Your task to perform on an android device: turn off improve location accuracy Image 0: 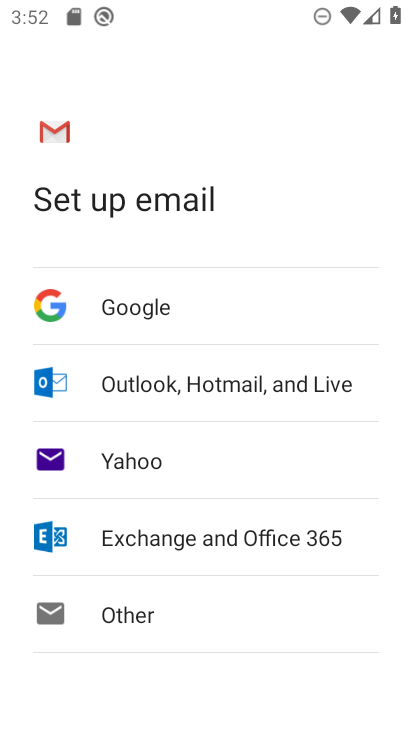
Step 0: press home button
Your task to perform on an android device: turn off improve location accuracy Image 1: 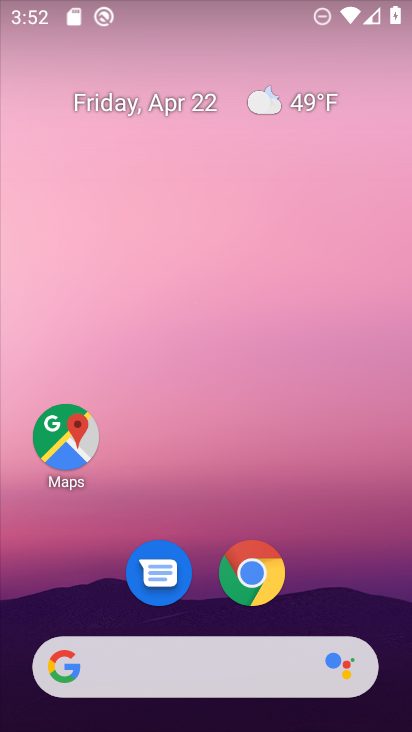
Step 1: drag from (307, 547) to (297, 71)
Your task to perform on an android device: turn off improve location accuracy Image 2: 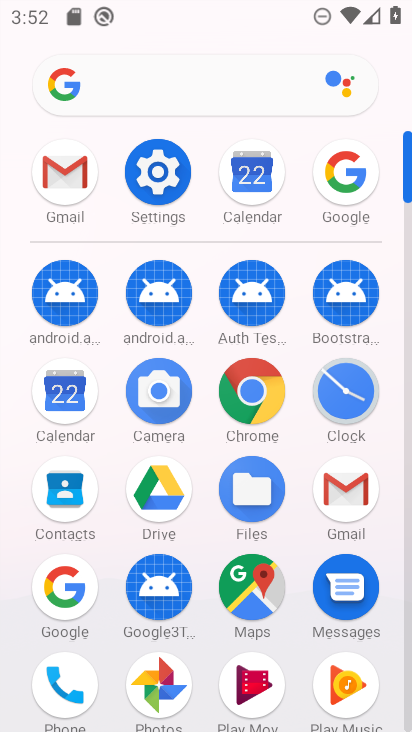
Step 2: click (153, 170)
Your task to perform on an android device: turn off improve location accuracy Image 3: 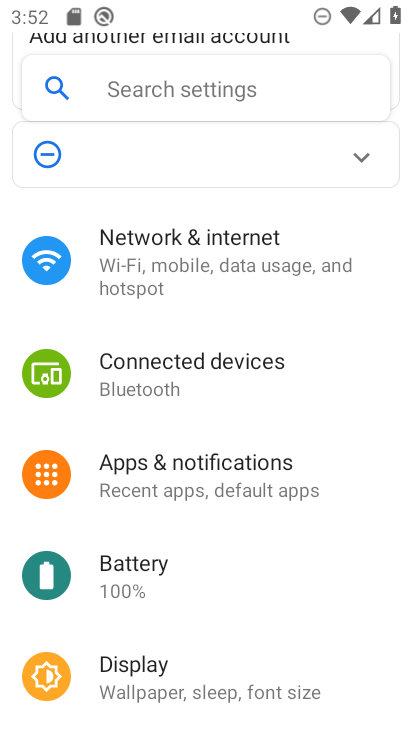
Step 3: drag from (223, 531) to (270, 77)
Your task to perform on an android device: turn off improve location accuracy Image 4: 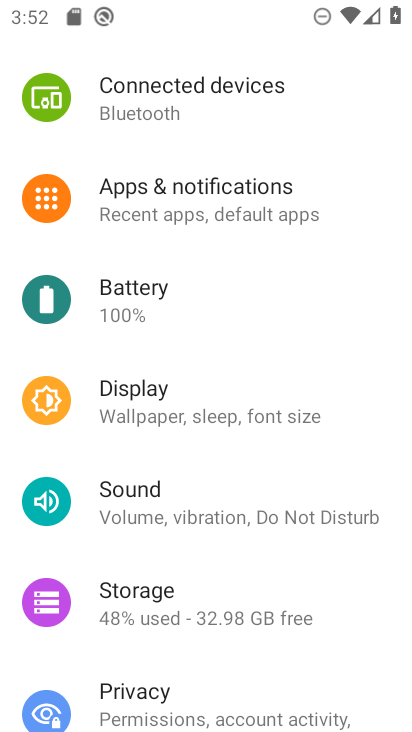
Step 4: drag from (208, 513) to (268, 165)
Your task to perform on an android device: turn off improve location accuracy Image 5: 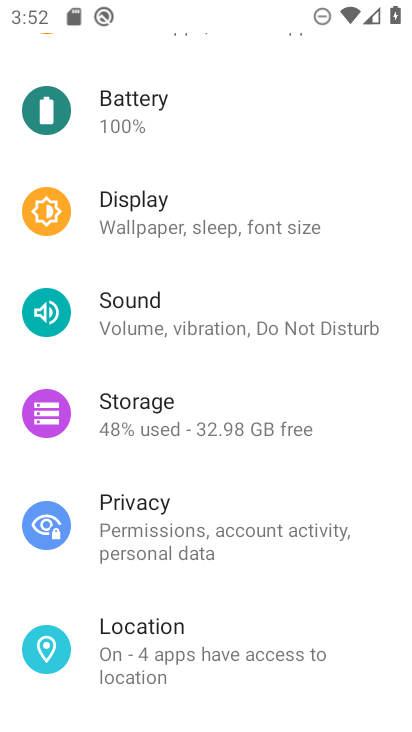
Step 5: click (200, 662)
Your task to perform on an android device: turn off improve location accuracy Image 6: 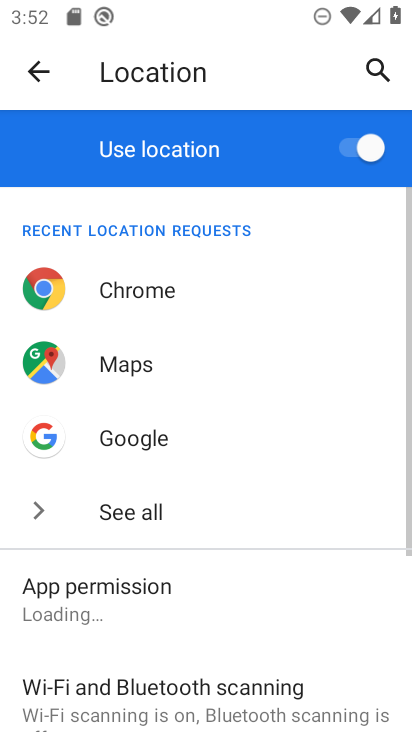
Step 6: drag from (191, 652) to (234, 155)
Your task to perform on an android device: turn off improve location accuracy Image 7: 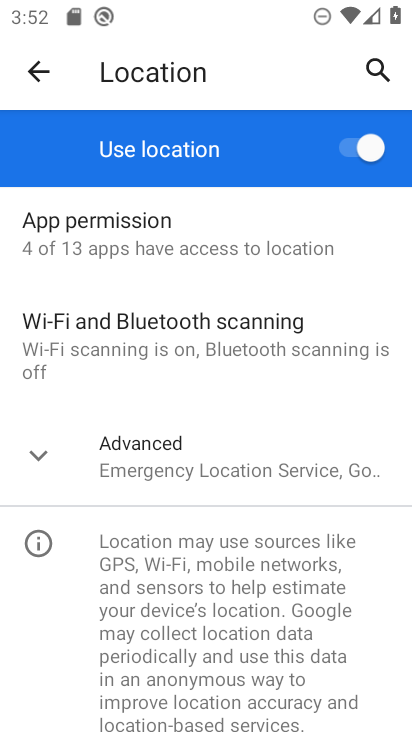
Step 7: click (185, 456)
Your task to perform on an android device: turn off improve location accuracy Image 8: 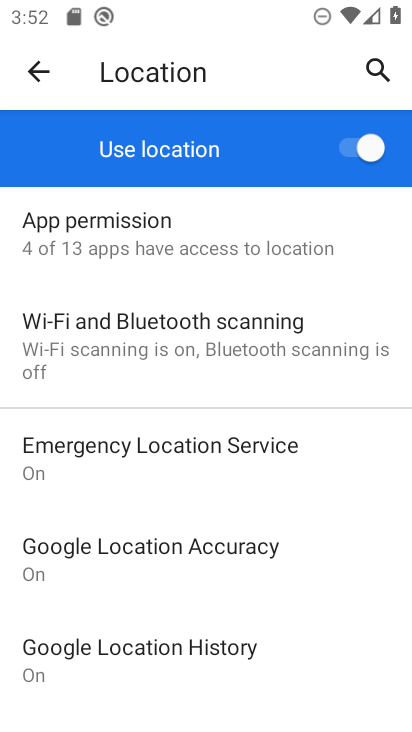
Step 8: drag from (326, 669) to (331, 254)
Your task to perform on an android device: turn off improve location accuracy Image 9: 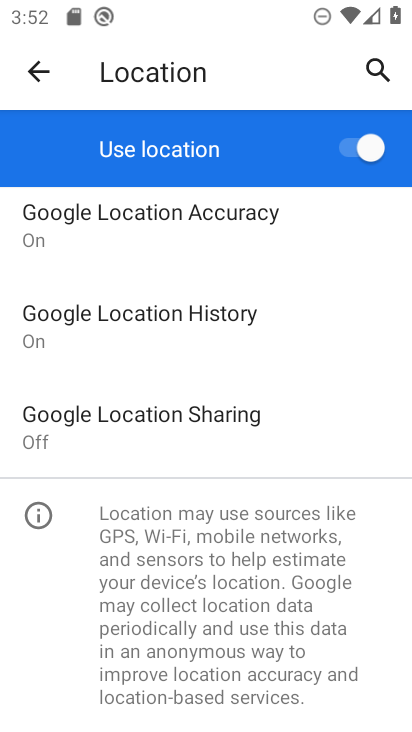
Step 9: click (247, 215)
Your task to perform on an android device: turn off improve location accuracy Image 10: 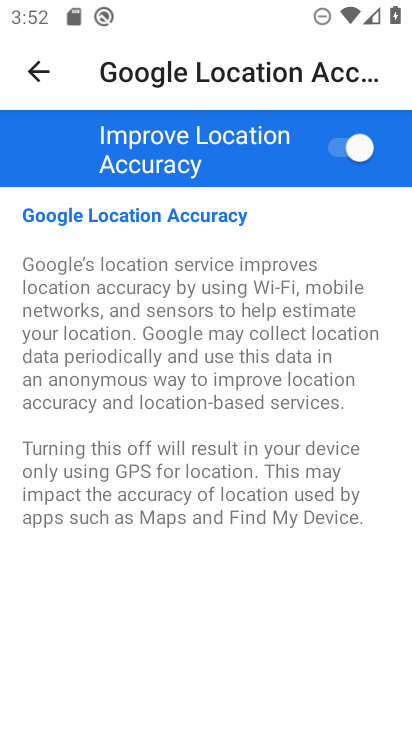
Step 10: click (354, 154)
Your task to perform on an android device: turn off improve location accuracy Image 11: 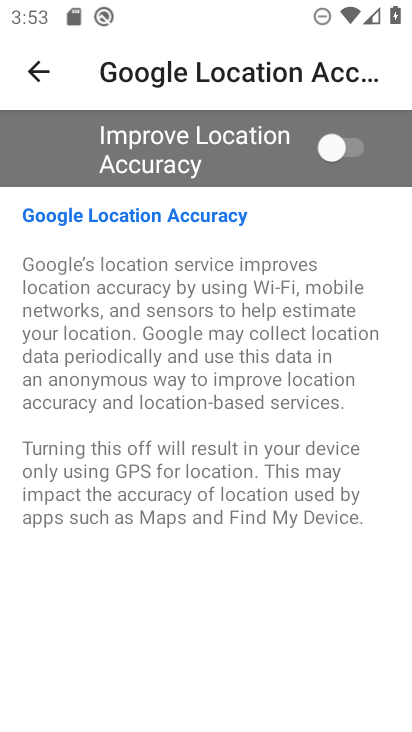
Step 11: task complete